Your task to perform on an android device: install app "Fetch Rewards" Image 0: 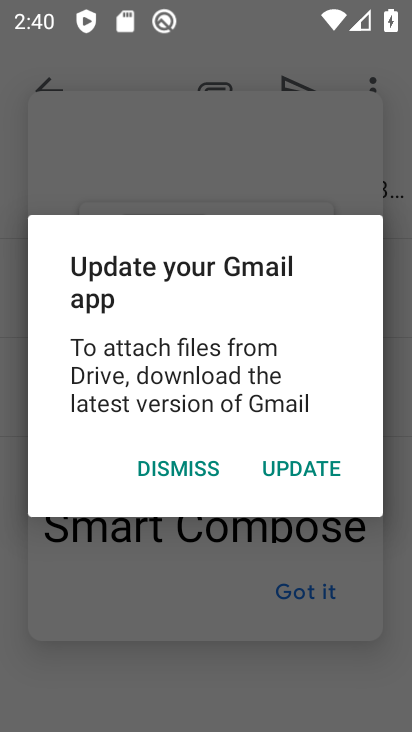
Step 0: press home button
Your task to perform on an android device: install app "Fetch Rewards" Image 1: 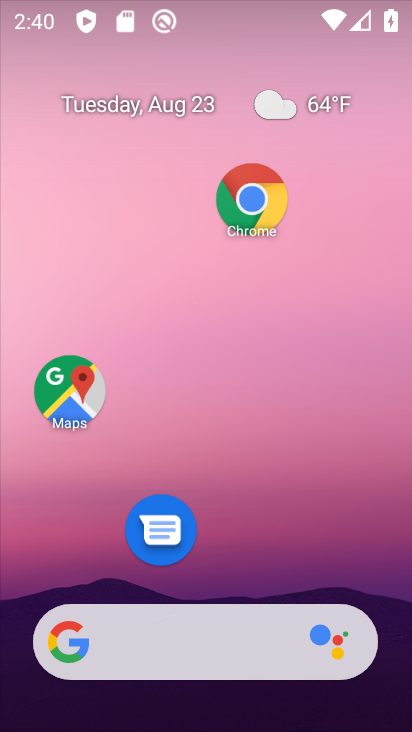
Step 1: drag from (206, 614) to (116, 13)
Your task to perform on an android device: install app "Fetch Rewards" Image 2: 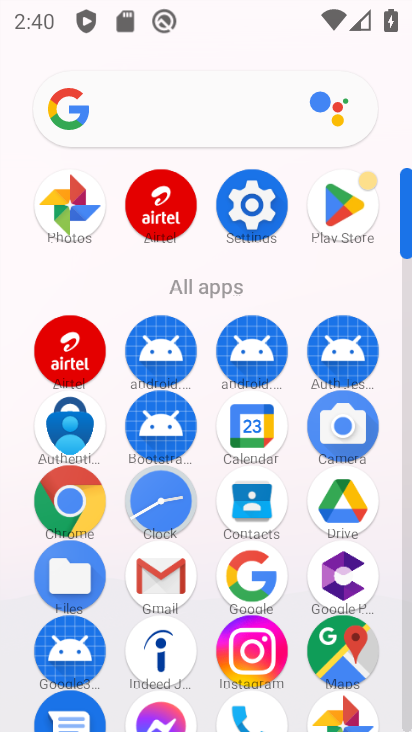
Step 2: click (337, 226)
Your task to perform on an android device: install app "Fetch Rewards" Image 3: 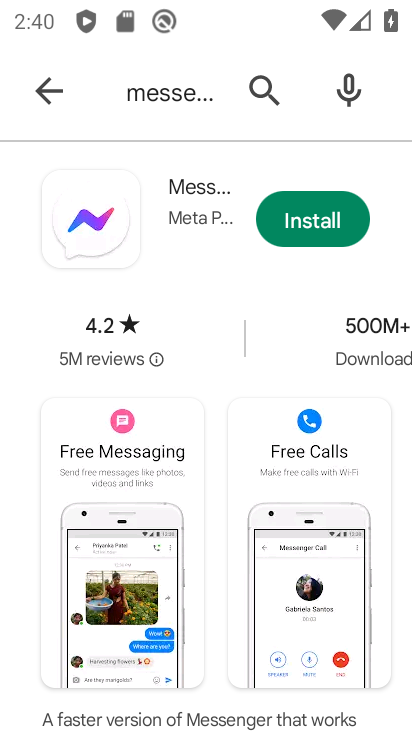
Step 3: click (142, 109)
Your task to perform on an android device: install app "Fetch Rewards" Image 4: 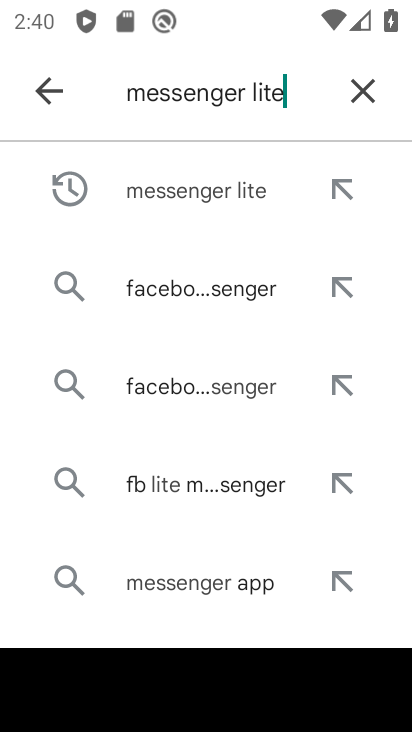
Step 4: click (353, 85)
Your task to perform on an android device: install app "Fetch Rewards" Image 5: 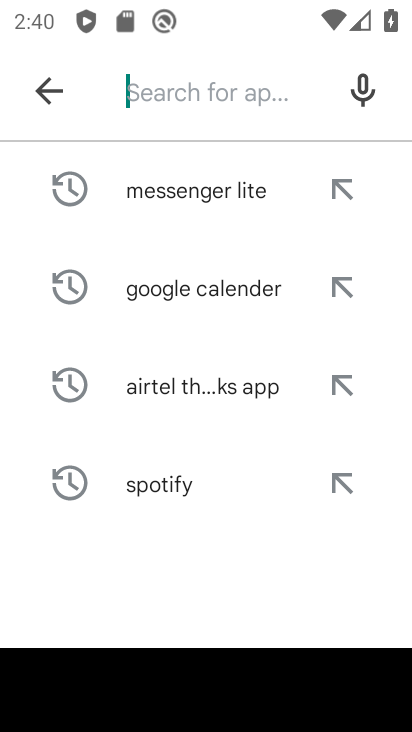
Step 5: type "fetch rewards"
Your task to perform on an android device: install app "Fetch Rewards" Image 6: 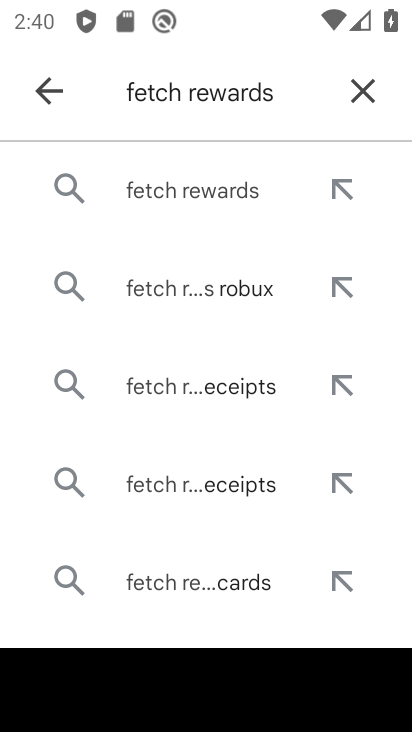
Step 6: click (198, 179)
Your task to perform on an android device: install app "Fetch Rewards" Image 7: 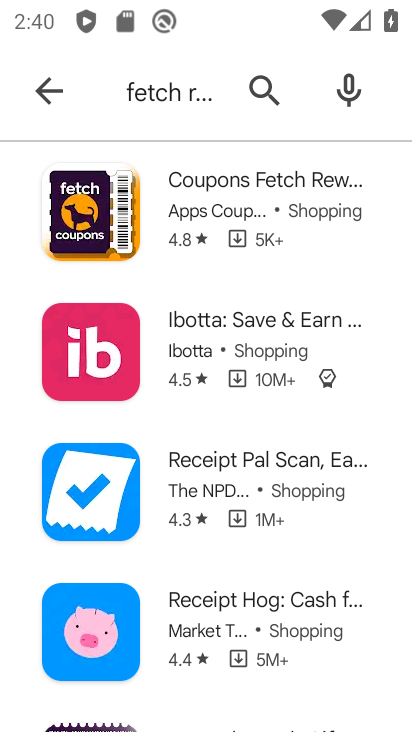
Step 7: task complete